Your task to perform on an android device: Open Google Maps and go to "Timeline" Image 0: 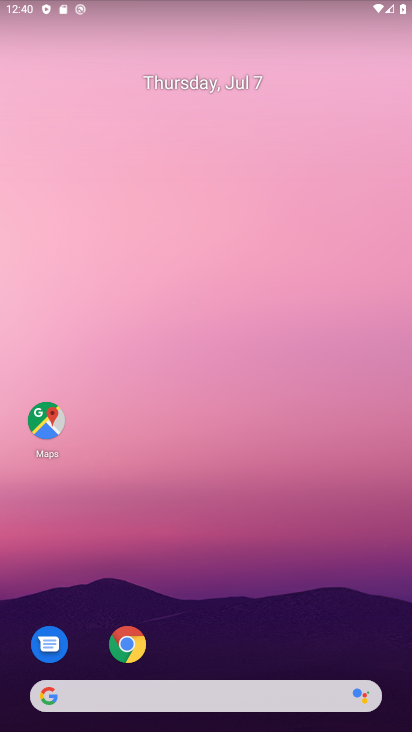
Step 0: drag from (135, 64) to (100, 7)
Your task to perform on an android device: Open Google Maps and go to "Timeline" Image 1: 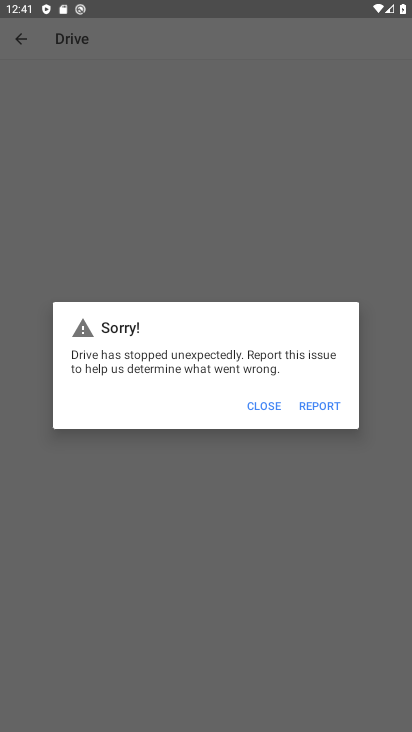
Step 1: press home button
Your task to perform on an android device: Open Google Maps and go to "Timeline" Image 2: 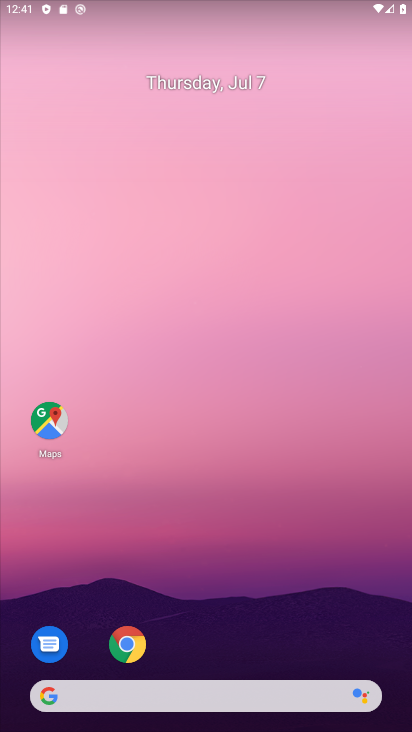
Step 2: click (45, 426)
Your task to perform on an android device: Open Google Maps and go to "Timeline" Image 3: 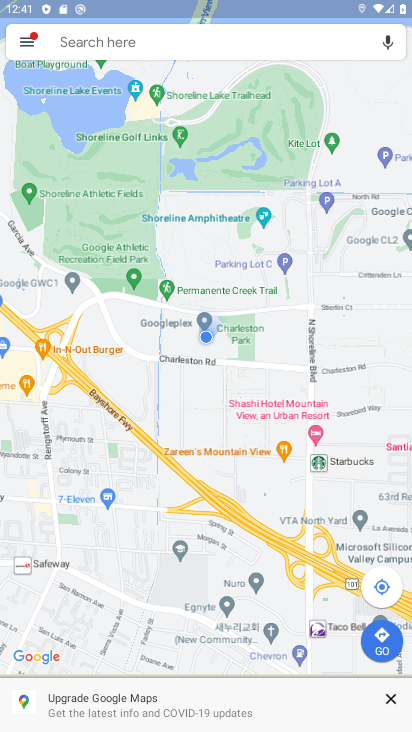
Step 3: click (30, 36)
Your task to perform on an android device: Open Google Maps and go to "Timeline" Image 4: 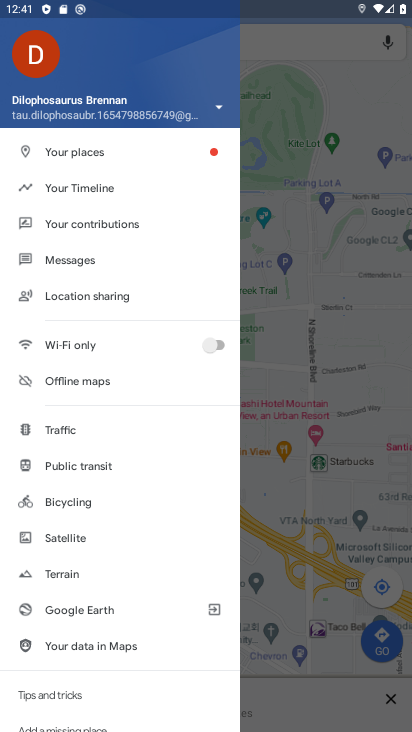
Step 4: click (79, 193)
Your task to perform on an android device: Open Google Maps and go to "Timeline" Image 5: 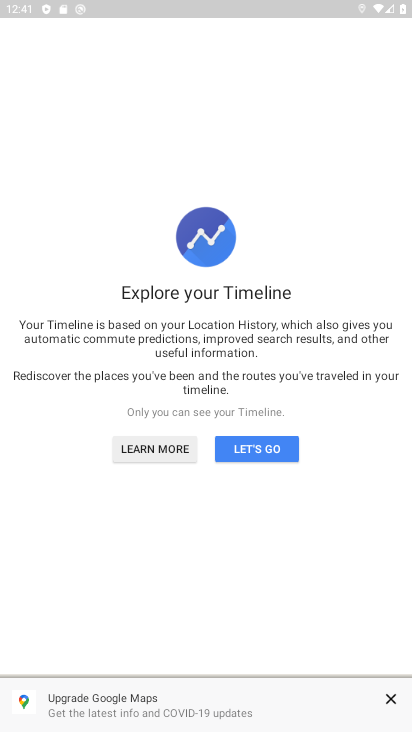
Step 5: task complete